Your task to perform on an android device: open a new tab in the chrome app Image 0: 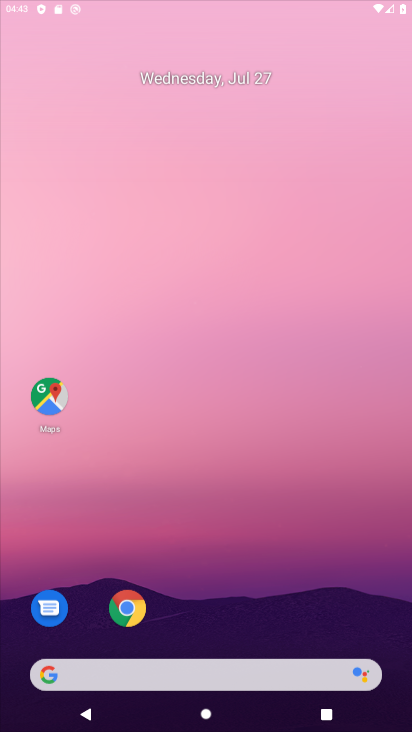
Step 0: press home button
Your task to perform on an android device: open a new tab in the chrome app Image 1: 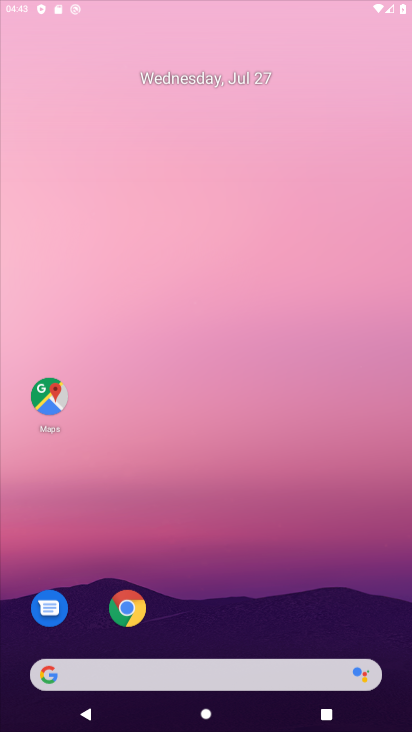
Step 1: click (205, 199)
Your task to perform on an android device: open a new tab in the chrome app Image 2: 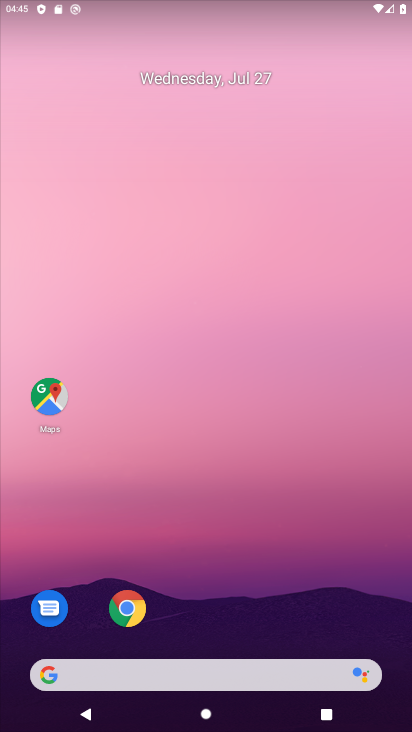
Step 2: drag from (225, 619) to (271, 116)
Your task to perform on an android device: open a new tab in the chrome app Image 3: 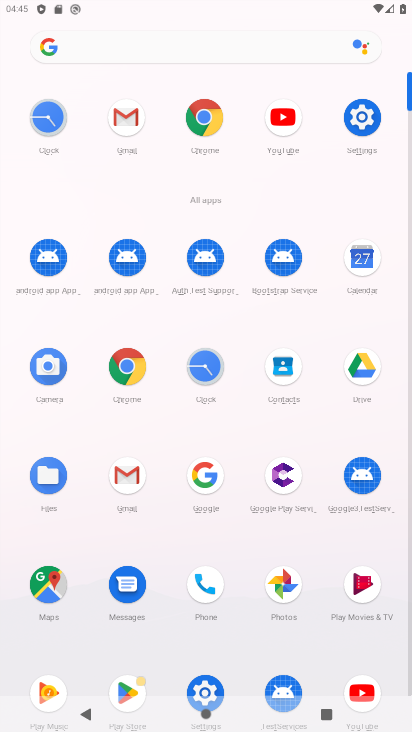
Step 3: click (205, 127)
Your task to perform on an android device: open a new tab in the chrome app Image 4: 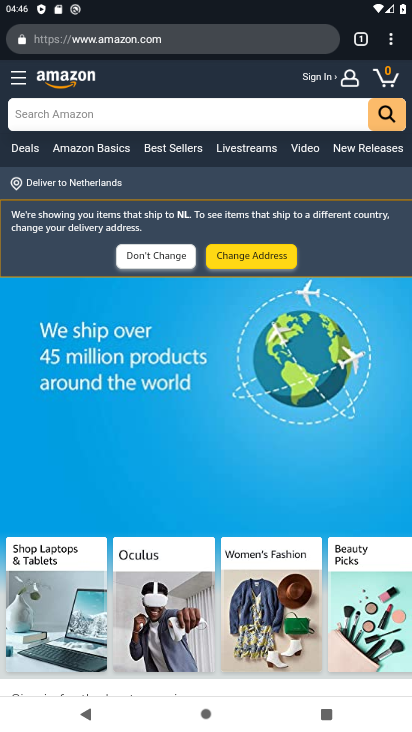
Step 4: click (361, 42)
Your task to perform on an android device: open a new tab in the chrome app Image 5: 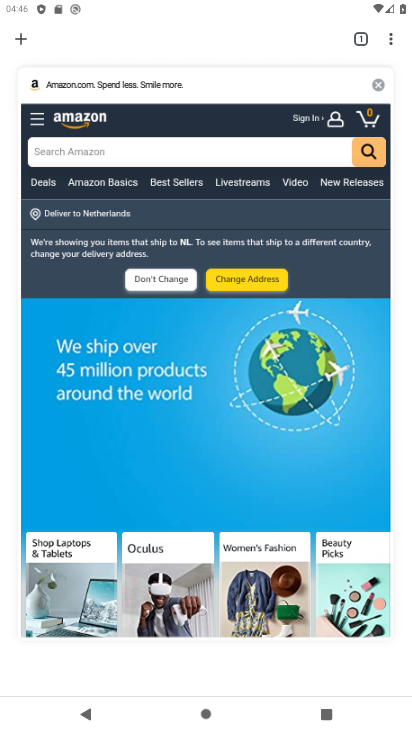
Step 5: click (19, 38)
Your task to perform on an android device: open a new tab in the chrome app Image 6: 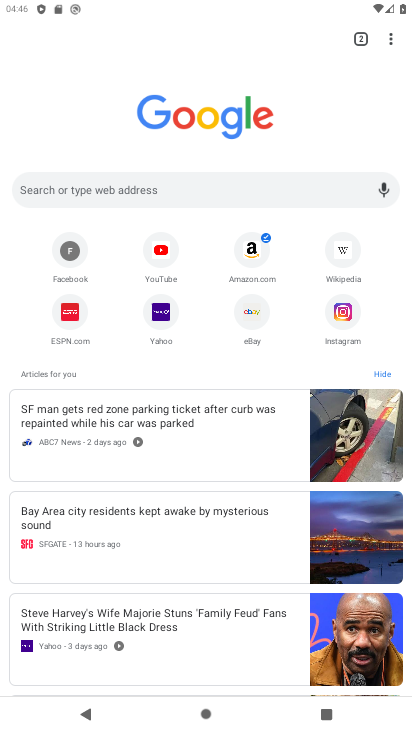
Step 6: task complete